Your task to perform on an android device: Open display settings Image 0: 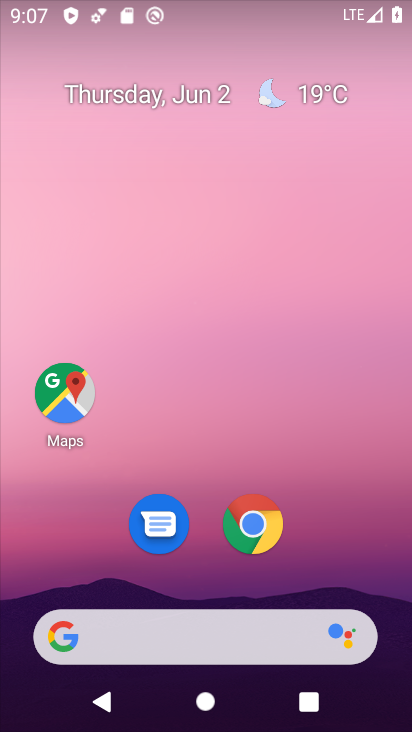
Step 0: drag from (197, 548) to (205, 43)
Your task to perform on an android device: Open display settings Image 1: 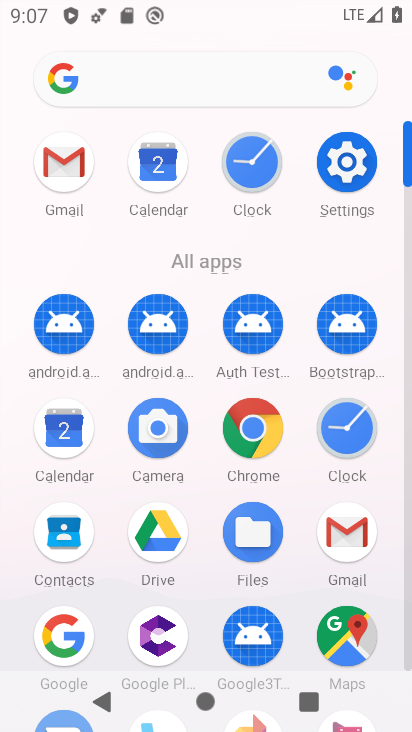
Step 1: click (350, 150)
Your task to perform on an android device: Open display settings Image 2: 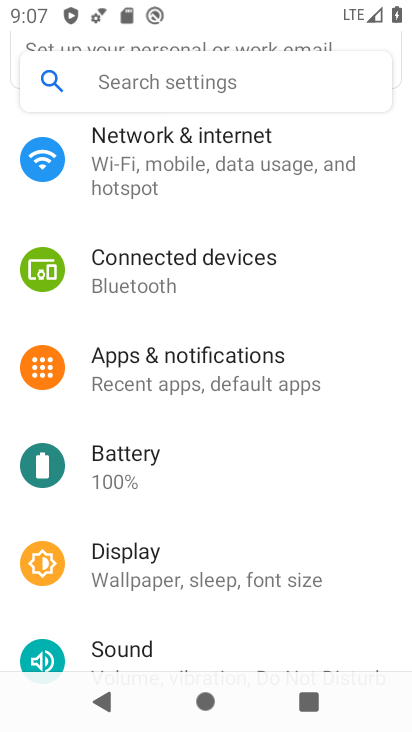
Step 2: click (176, 561)
Your task to perform on an android device: Open display settings Image 3: 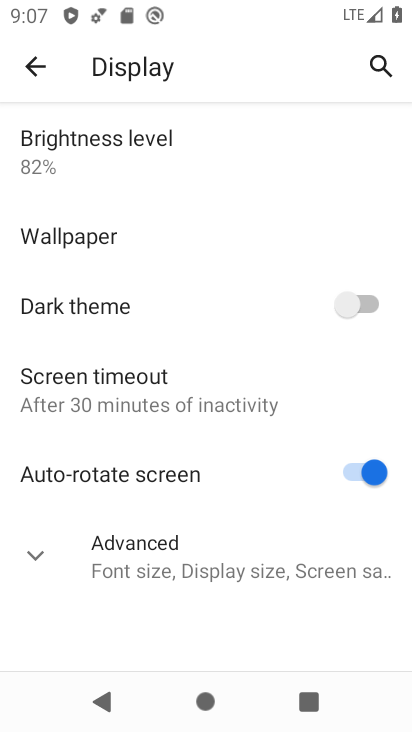
Step 3: task complete